Your task to perform on an android device: Go to Yahoo.com Image 0: 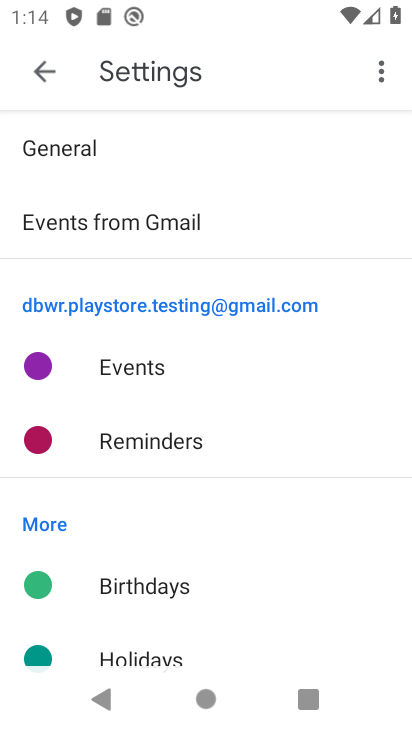
Step 0: press home button
Your task to perform on an android device: Go to Yahoo.com Image 1: 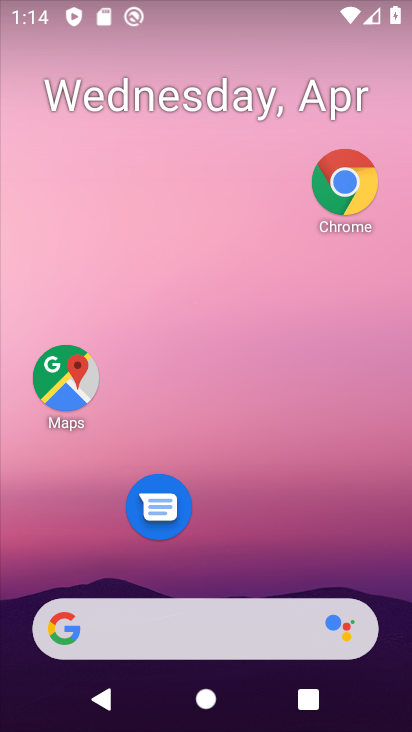
Step 1: click (357, 189)
Your task to perform on an android device: Go to Yahoo.com Image 2: 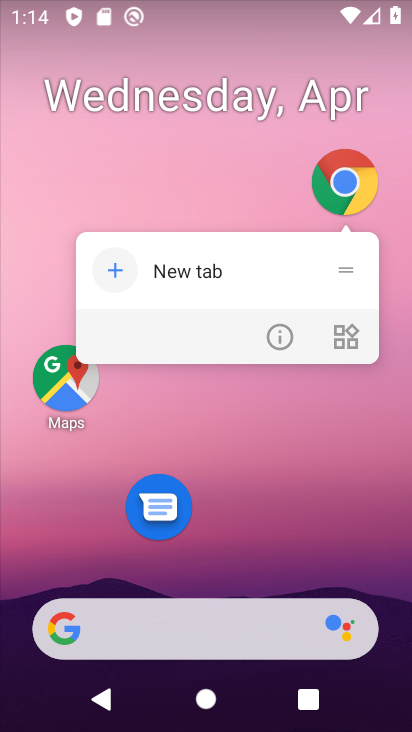
Step 2: click (347, 190)
Your task to perform on an android device: Go to Yahoo.com Image 3: 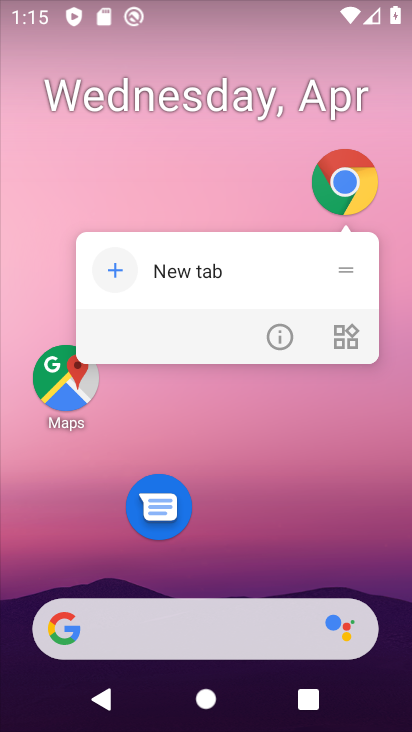
Step 3: click (349, 180)
Your task to perform on an android device: Go to Yahoo.com Image 4: 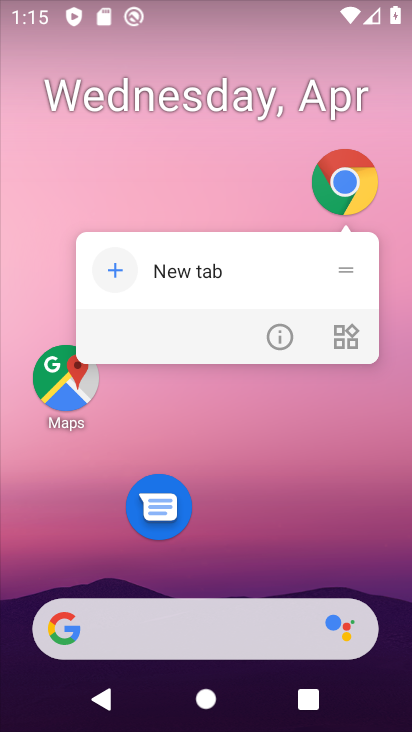
Step 4: click (349, 180)
Your task to perform on an android device: Go to Yahoo.com Image 5: 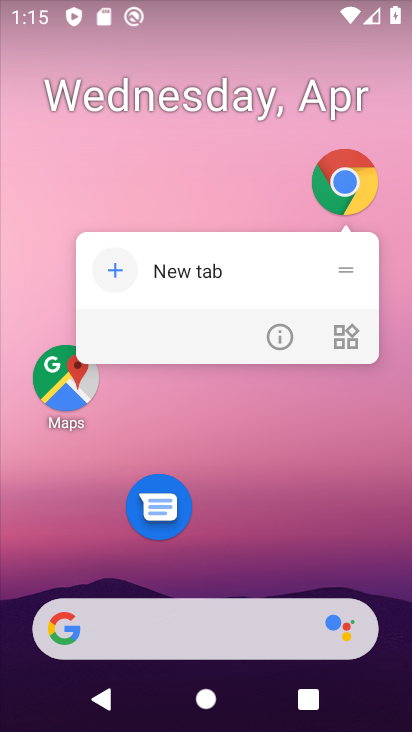
Step 5: click (350, 180)
Your task to perform on an android device: Go to Yahoo.com Image 6: 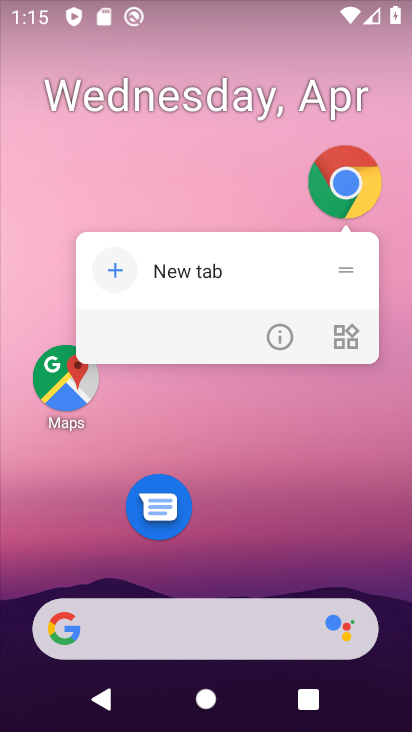
Step 6: click (353, 189)
Your task to perform on an android device: Go to Yahoo.com Image 7: 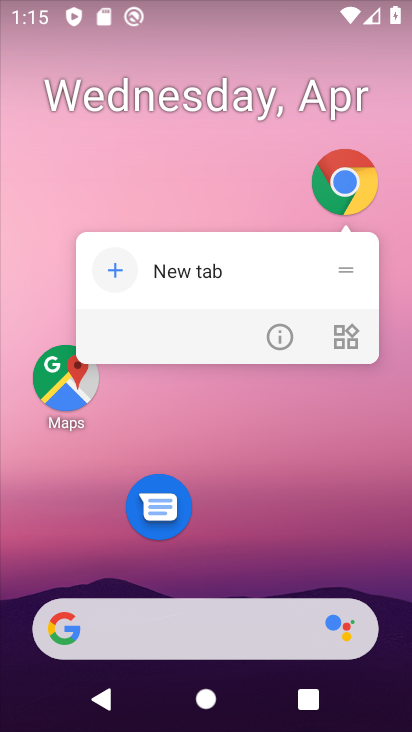
Step 7: click (190, 645)
Your task to perform on an android device: Go to Yahoo.com Image 8: 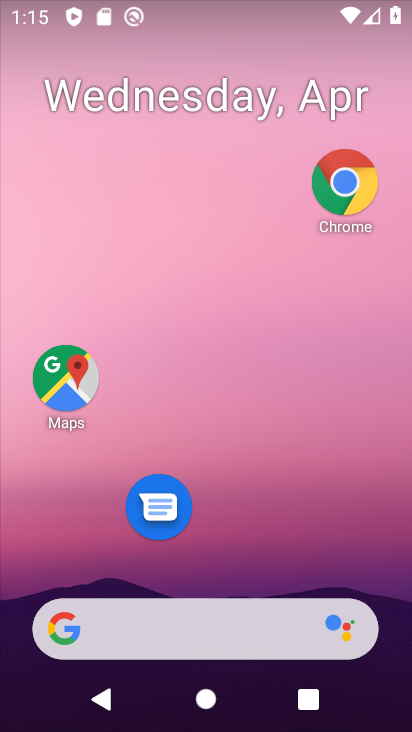
Step 8: click (213, 625)
Your task to perform on an android device: Go to Yahoo.com Image 9: 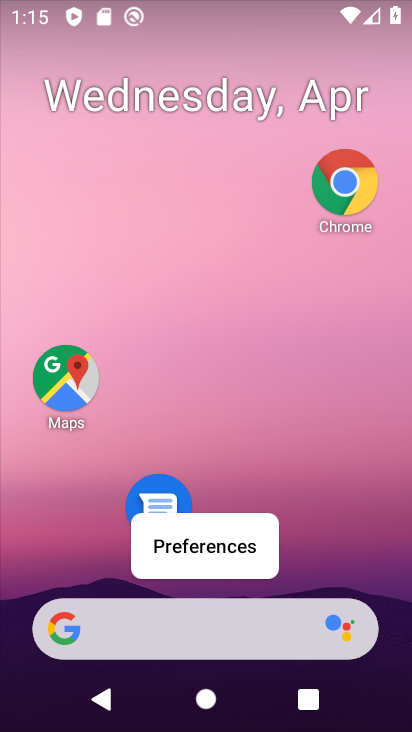
Step 9: click (241, 633)
Your task to perform on an android device: Go to Yahoo.com Image 10: 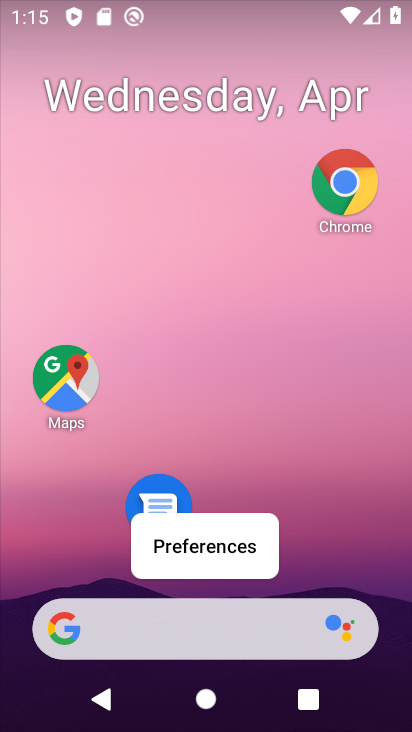
Step 10: click (239, 633)
Your task to perform on an android device: Go to Yahoo.com Image 11: 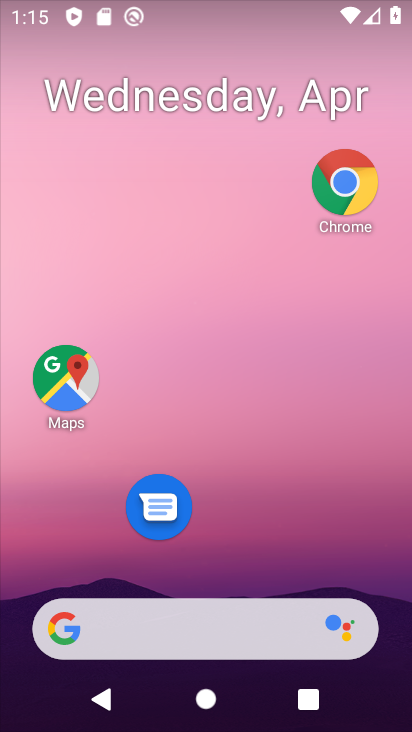
Step 11: click (347, 183)
Your task to perform on an android device: Go to Yahoo.com Image 12: 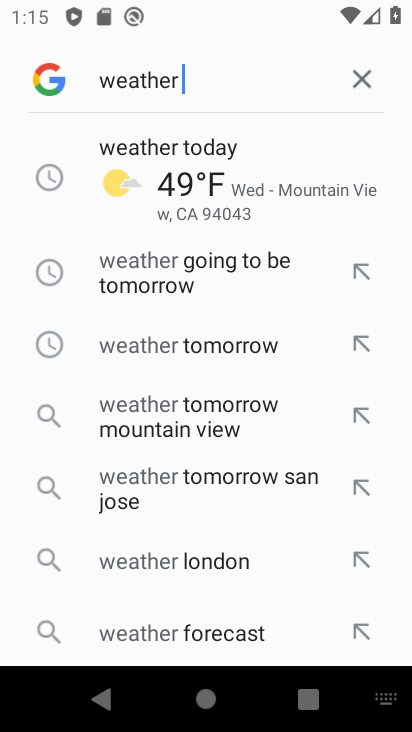
Step 12: click (364, 81)
Your task to perform on an android device: Go to Yahoo.com Image 13: 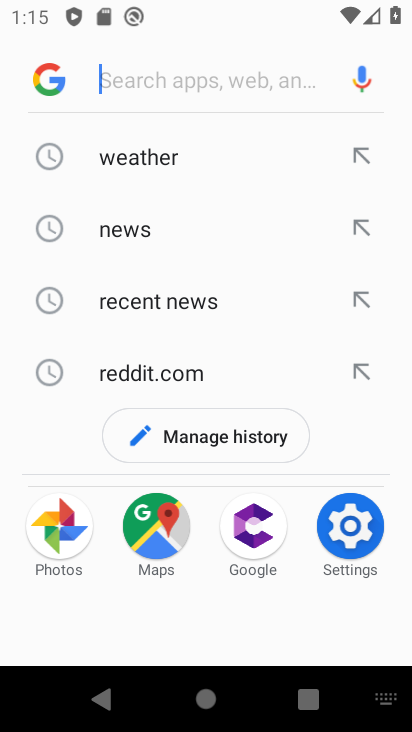
Step 13: type "yahoo.com"
Your task to perform on an android device: Go to Yahoo.com Image 14: 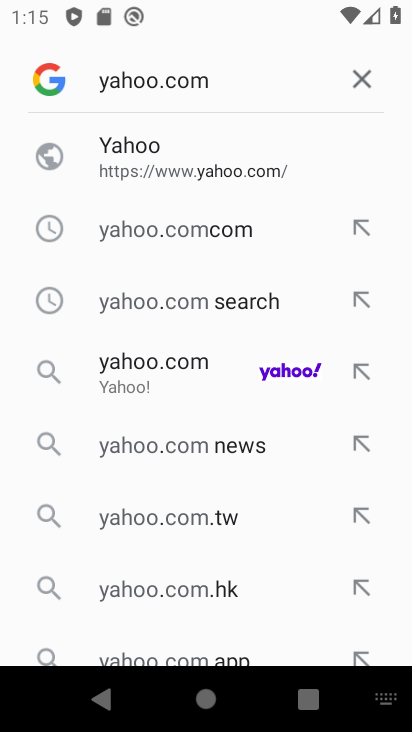
Step 14: click (189, 172)
Your task to perform on an android device: Go to Yahoo.com Image 15: 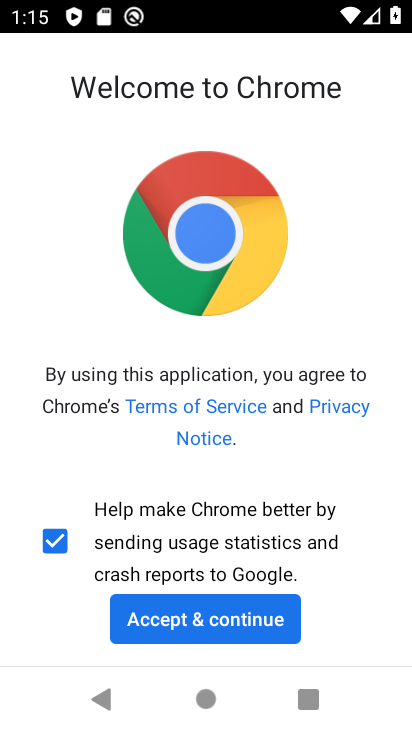
Step 15: click (174, 637)
Your task to perform on an android device: Go to Yahoo.com Image 16: 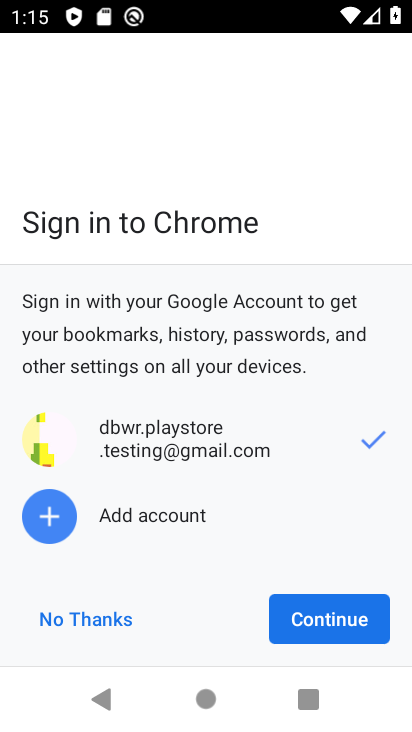
Step 16: click (361, 621)
Your task to perform on an android device: Go to Yahoo.com Image 17: 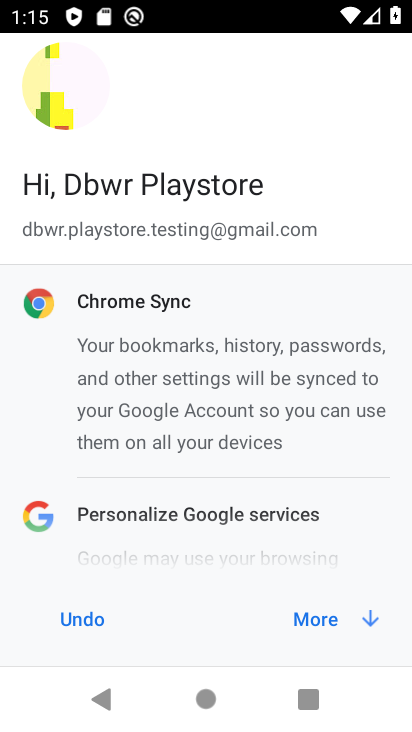
Step 17: click (315, 628)
Your task to perform on an android device: Go to Yahoo.com Image 18: 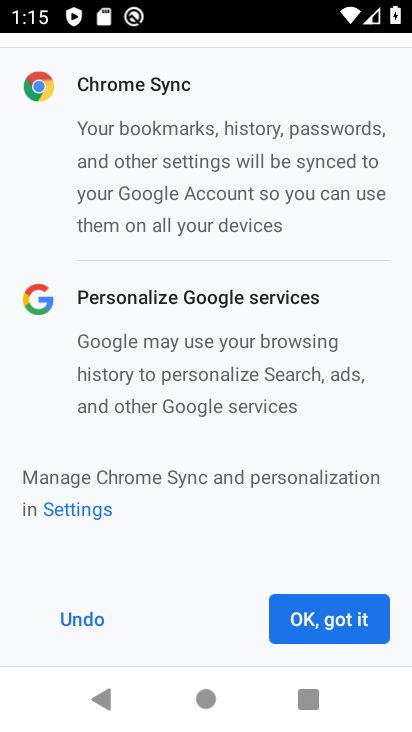
Step 18: click (333, 615)
Your task to perform on an android device: Go to Yahoo.com Image 19: 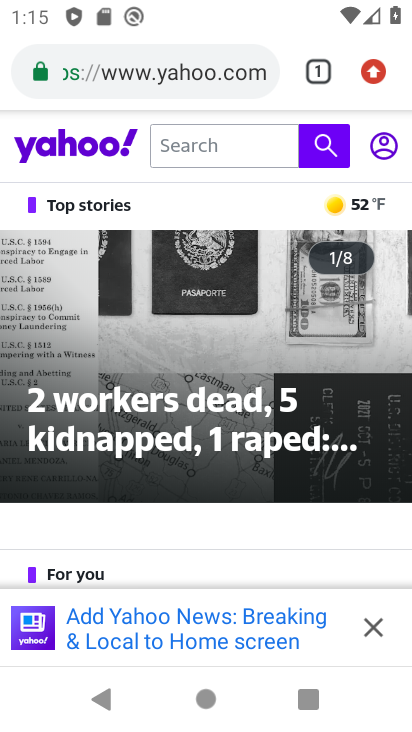
Step 19: task complete